Your task to perform on an android device: turn on bluetooth scan Image 0: 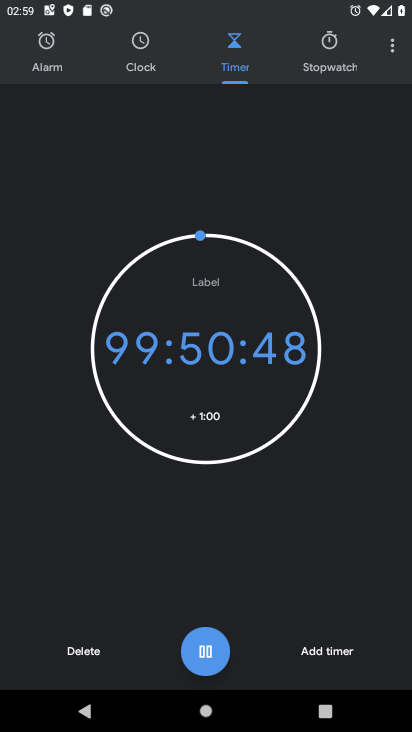
Step 0: press home button
Your task to perform on an android device: turn on bluetooth scan Image 1: 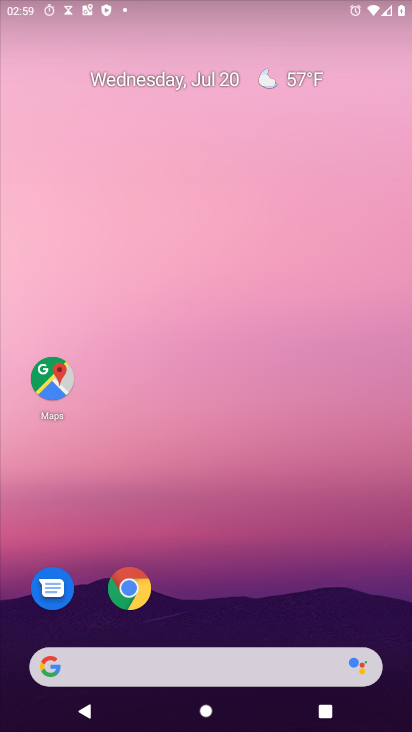
Step 1: drag from (321, 403) to (356, 2)
Your task to perform on an android device: turn on bluetooth scan Image 2: 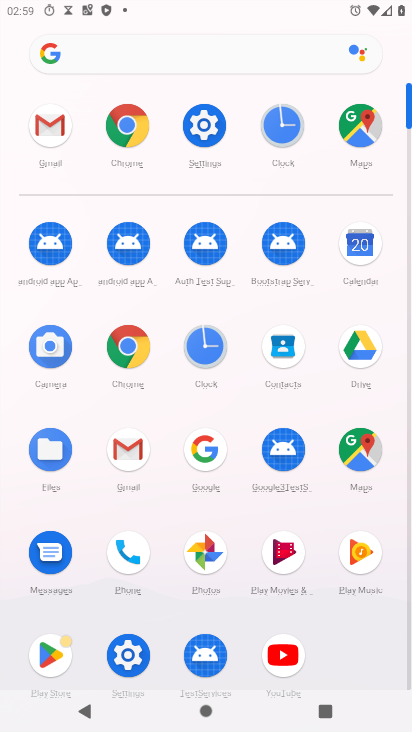
Step 2: click (117, 352)
Your task to perform on an android device: turn on bluetooth scan Image 3: 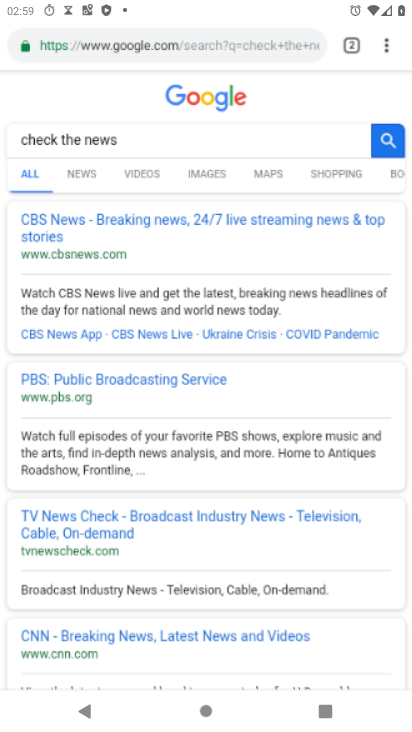
Step 3: press home button
Your task to perform on an android device: turn on bluetooth scan Image 4: 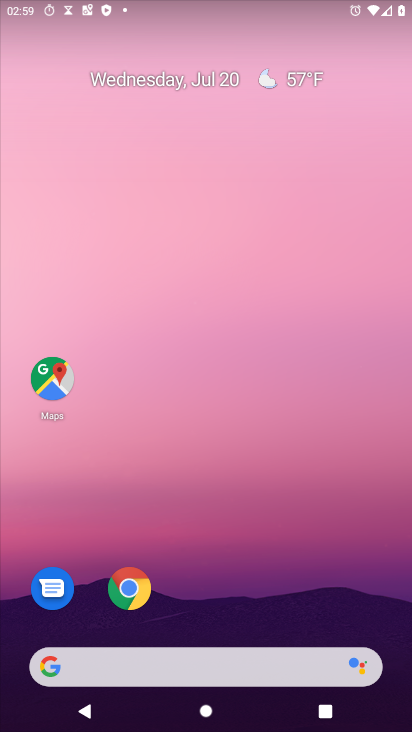
Step 4: drag from (290, 655) to (333, 31)
Your task to perform on an android device: turn on bluetooth scan Image 5: 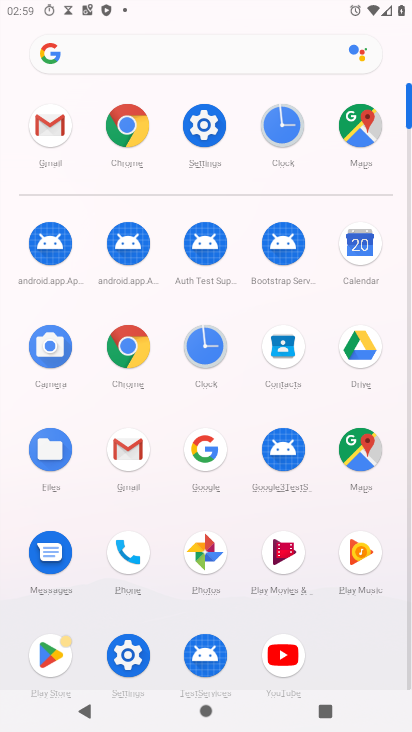
Step 5: click (213, 122)
Your task to perform on an android device: turn on bluetooth scan Image 6: 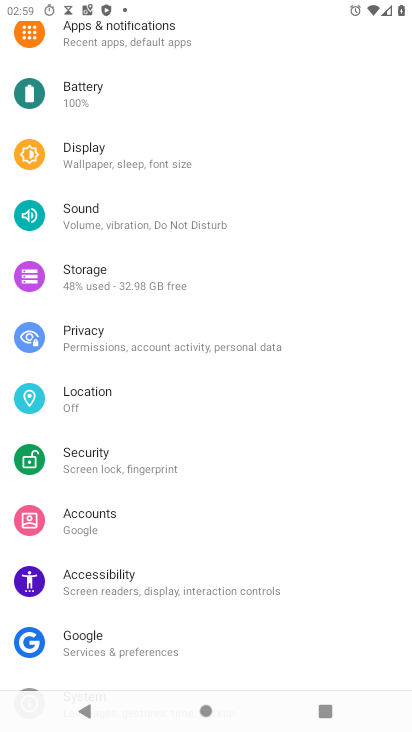
Step 6: drag from (154, 316) to (157, 386)
Your task to perform on an android device: turn on bluetooth scan Image 7: 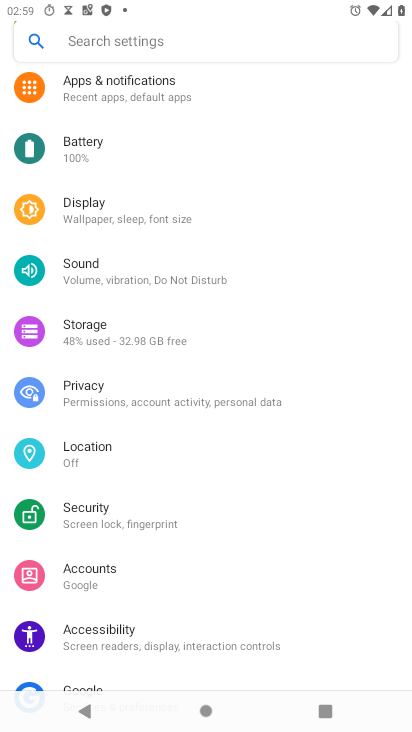
Step 7: click (116, 455)
Your task to perform on an android device: turn on bluetooth scan Image 8: 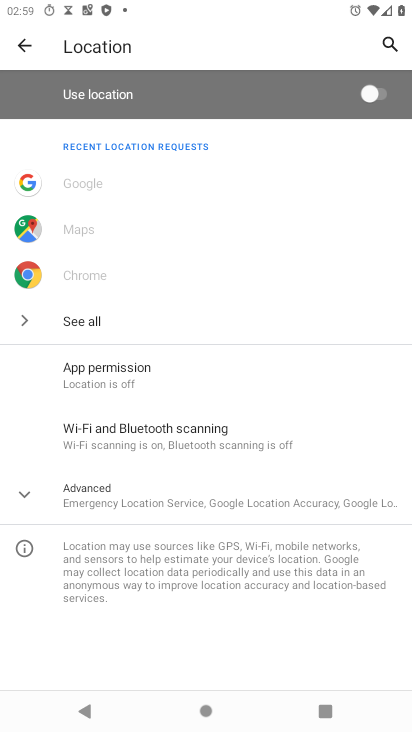
Step 8: click (143, 492)
Your task to perform on an android device: turn on bluetooth scan Image 9: 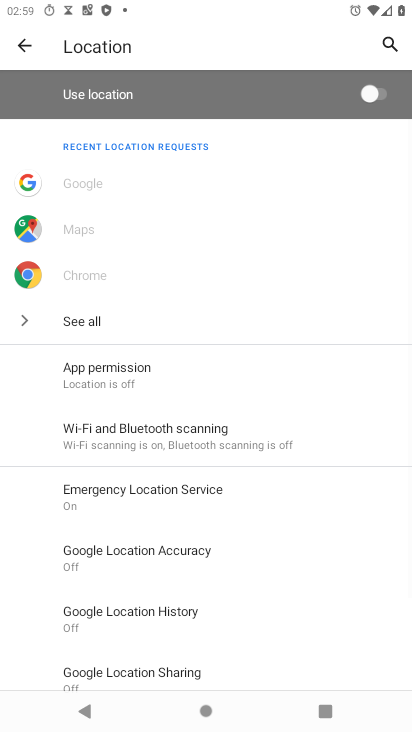
Step 9: click (212, 442)
Your task to perform on an android device: turn on bluetooth scan Image 10: 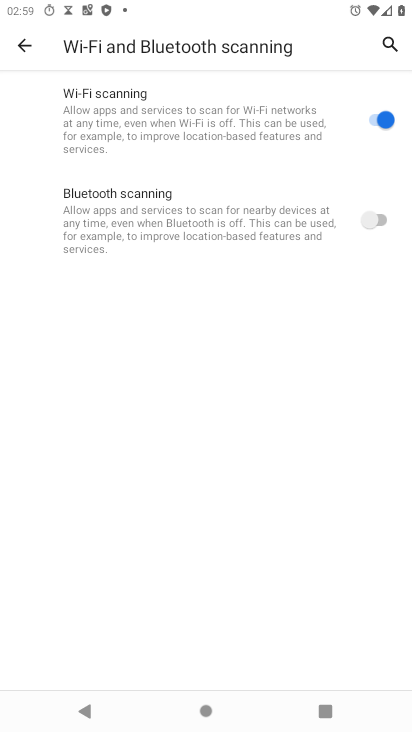
Step 10: click (380, 223)
Your task to perform on an android device: turn on bluetooth scan Image 11: 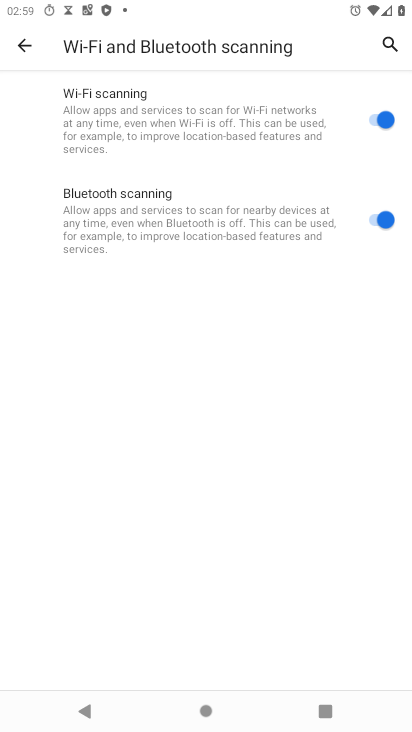
Step 11: task complete